Your task to perform on an android device: change the clock style Image 0: 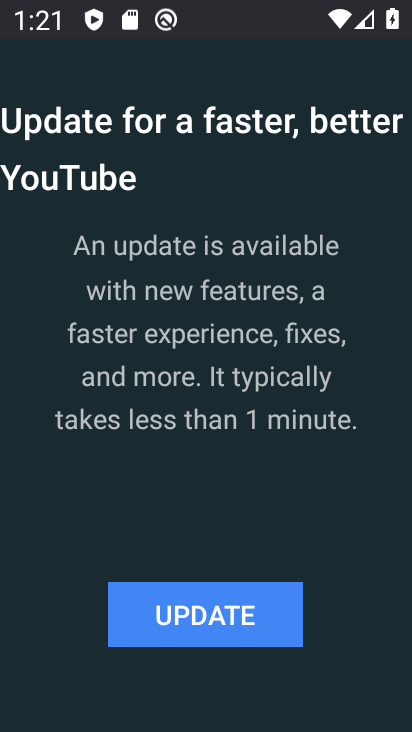
Step 0: press home button
Your task to perform on an android device: change the clock style Image 1: 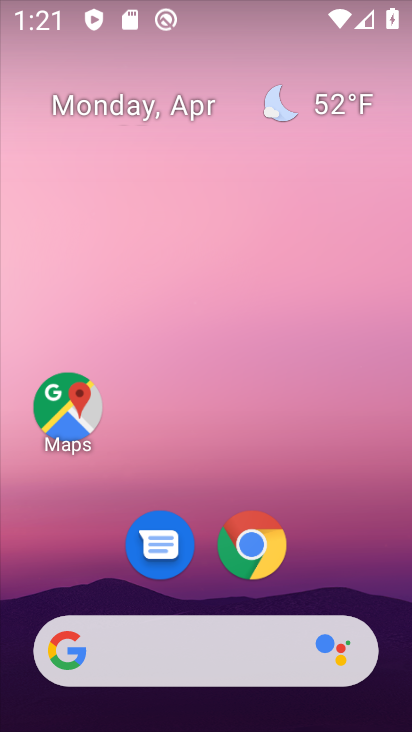
Step 1: drag from (234, 723) to (232, 173)
Your task to perform on an android device: change the clock style Image 2: 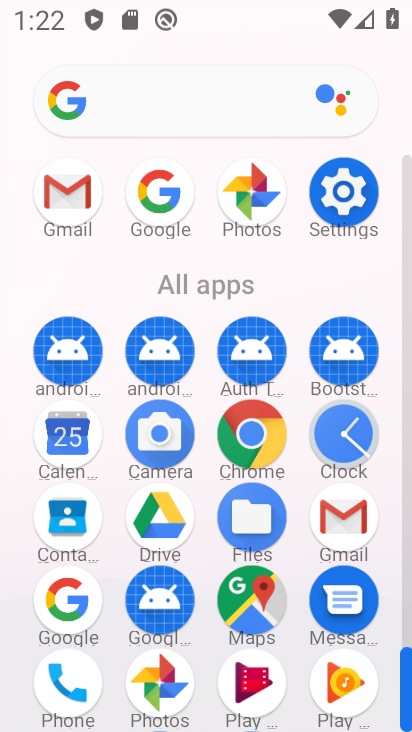
Step 2: click (341, 437)
Your task to perform on an android device: change the clock style Image 3: 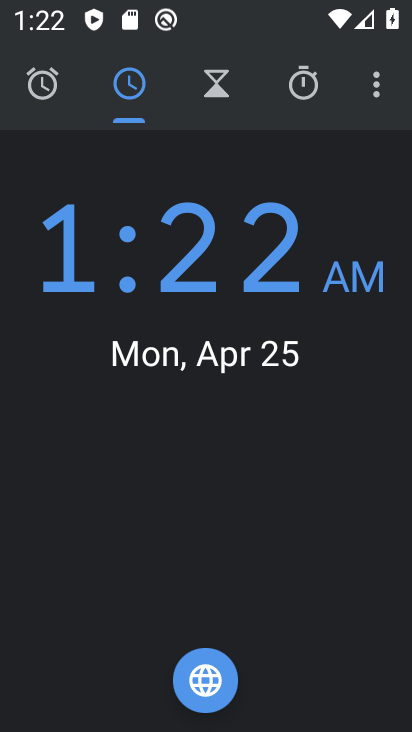
Step 3: click (377, 84)
Your task to perform on an android device: change the clock style Image 4: 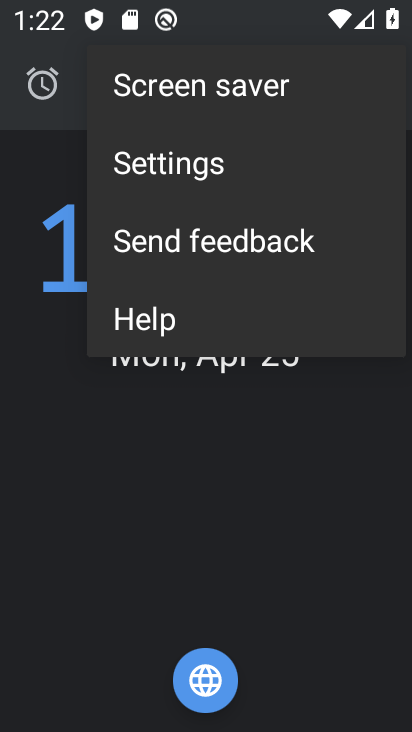
Step 4: click (152, 166)
Your task to perform on an android device: change the clock style Image 5: 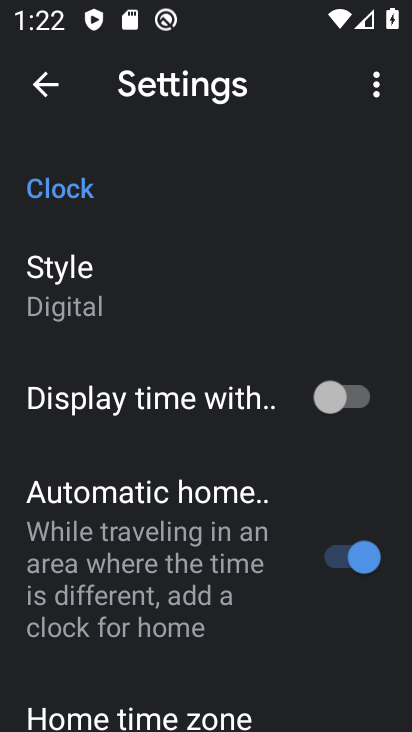
Step 5: click (67, 279)
Your task to perform on an android device: change the clock style Image 6: 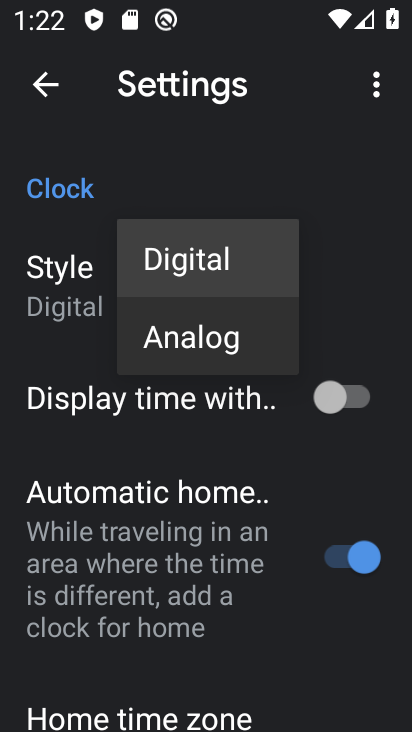
Step 6: click (161, 339)
Your task to perform on an android device: change the clock style Image 7: 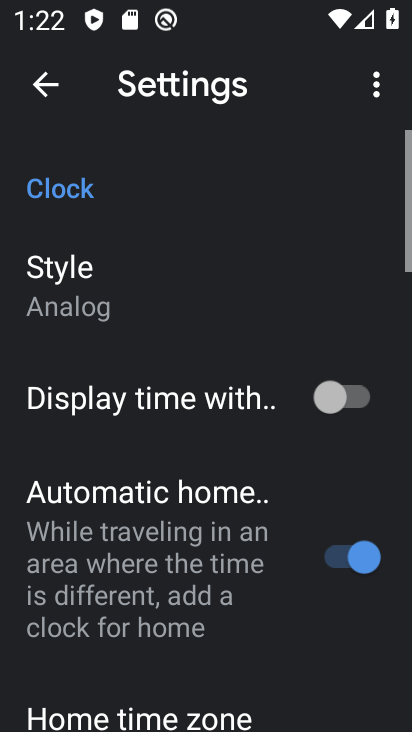
Step 7: task complete